Your task to perform on an android device: What is the recent news? Image 0: 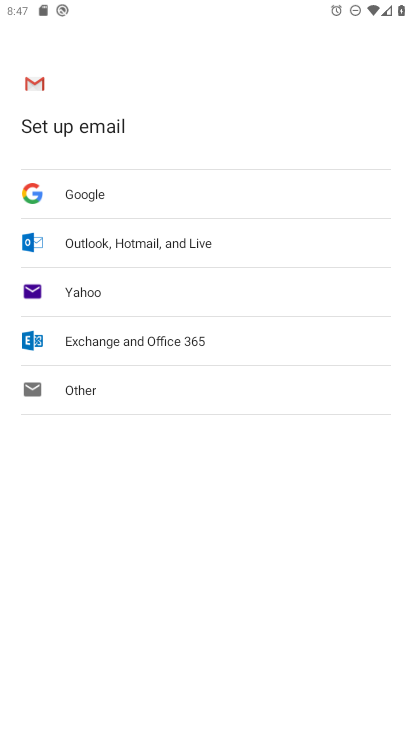
Step 0: press home button
Your task to perform on an android device: What is the recent news? Image 1: 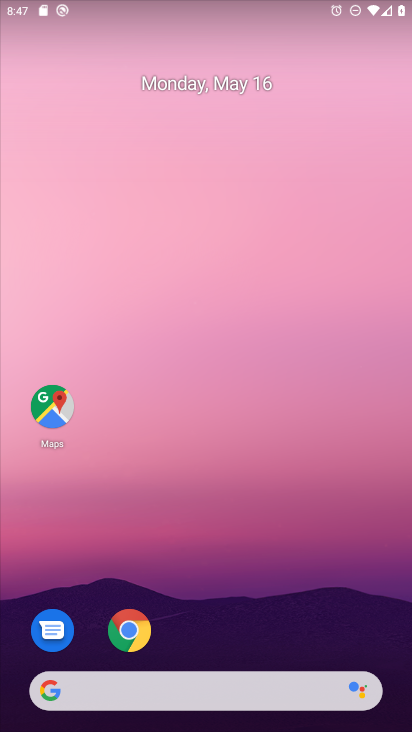
Step 1: click (98, 688)
Your task to perform on an android device: What is the recent news? Image 2: 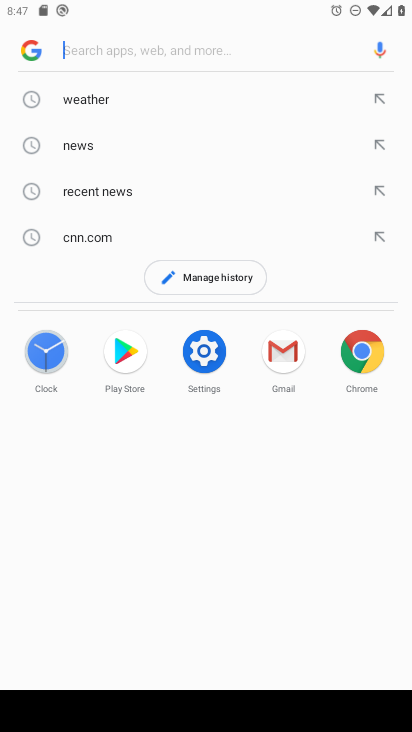
Step 2: click (99, 208)
Your task to perform on an android device: What is the recent news? Image 3: 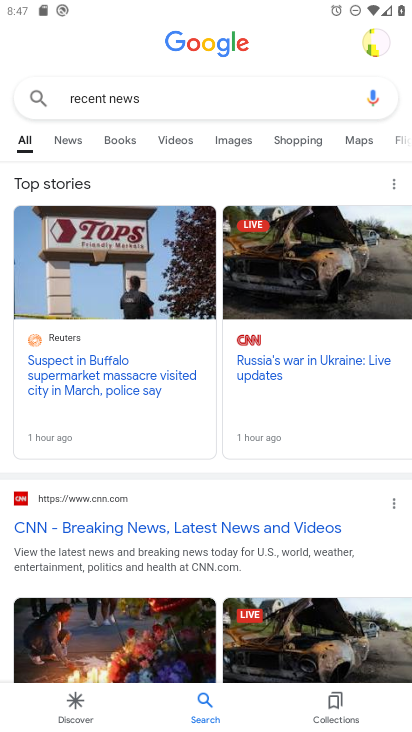
Step 3: task complete